Your task to perform on an android device: turn off data saver in the chrome app Image 0: 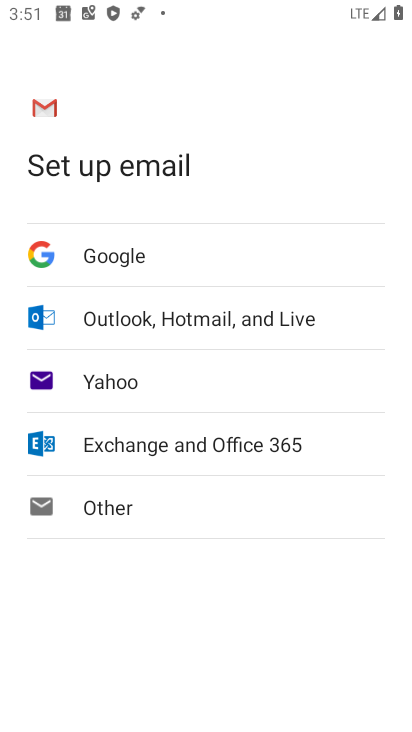
Step 0: press home button
Your task to perform on an android device: turn off data saver in the chrome app Image 1: 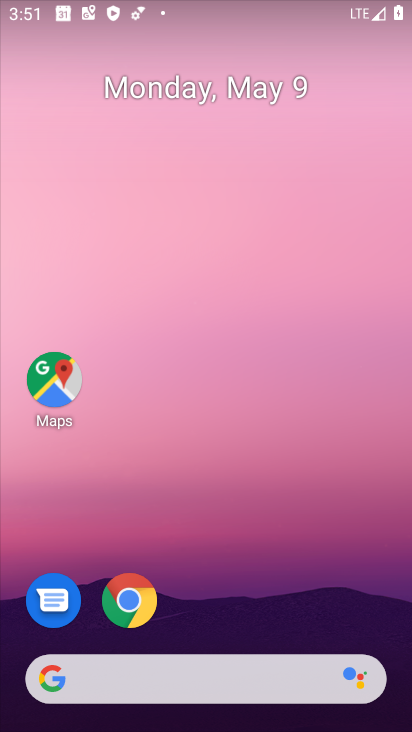
Step 1: drag from (300, 649) to (300, 47)
Your task to perform on an android device: turn off data saver in the chrome app Image 2: 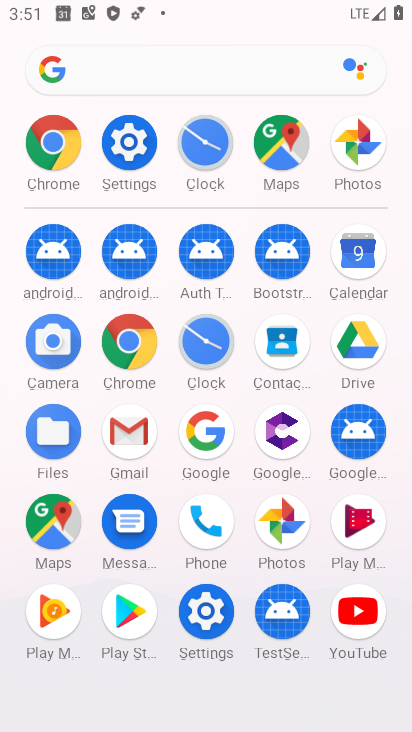
Step 2: click (126, 333)
Your task to perform on an android device: turn off data saver in the chrome app Image 3: 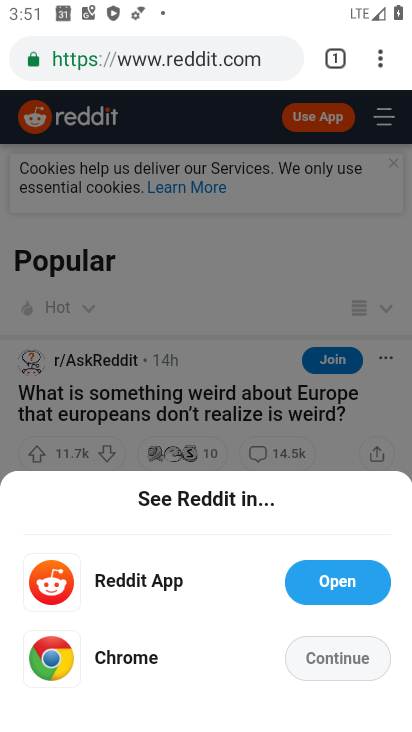
Step 3: click (375, 63)
Your task to perform on an android device: turn off data saver in the chrome app Image 4: 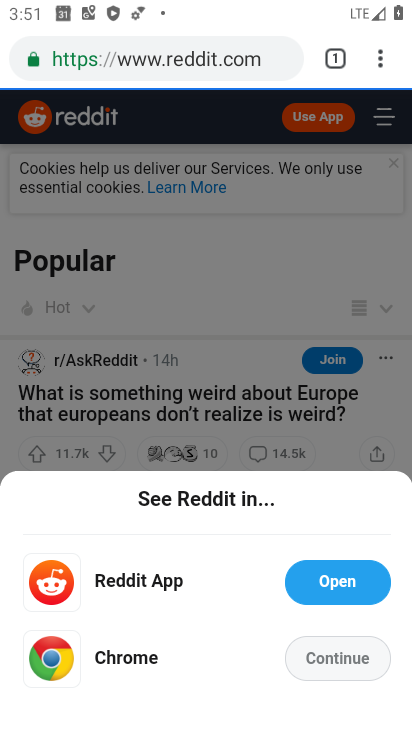
Step 4: drag from (379, 57) to (197, 633)
Your task to perform on an android device: turn off data saver in the chrome app Image 5: 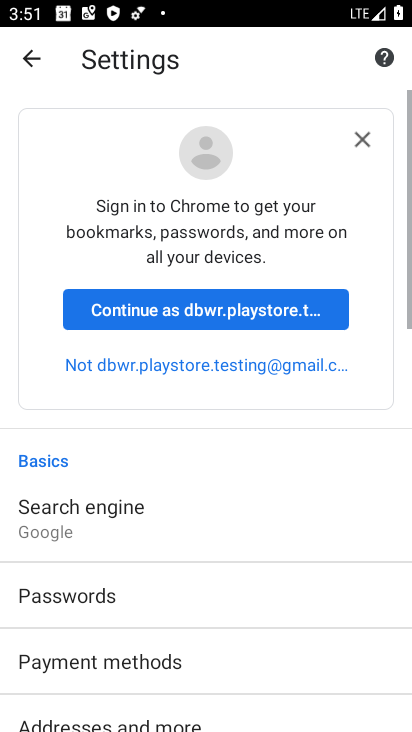
Step 5: drag from (261, 663) to (255, 67)
Your task to perform on an android device: turn off data saver in the chrome app Image 6: 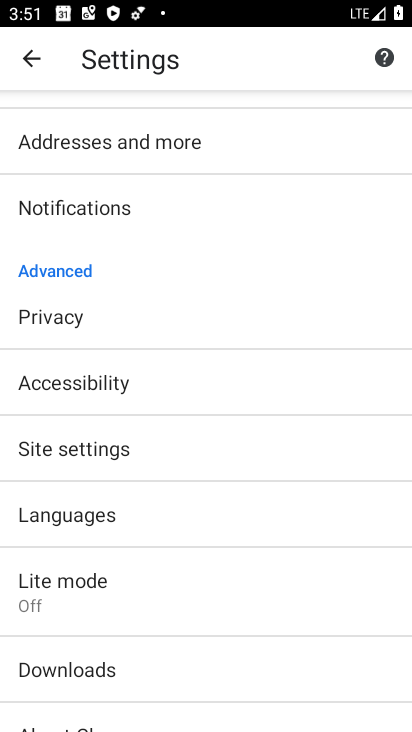
Step 6: click (89, 605)
Your task to perform on an android device: turn off data saver in the chrome app Image 7: 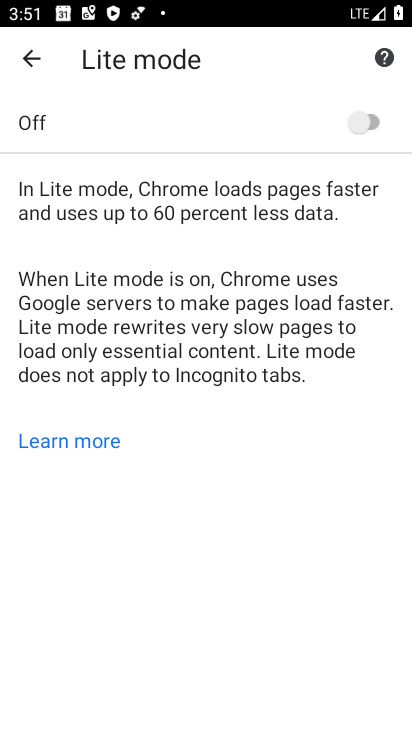
Step 7: task complete